Your task to perform on an android device: Open notification settings Image 0: 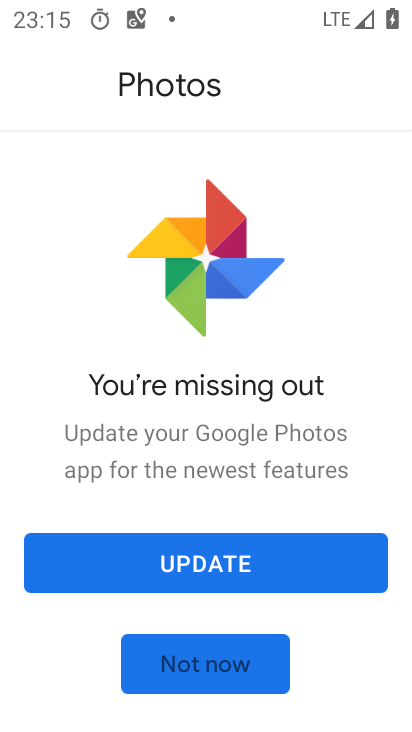
Step 0: press home button
Your task to perform on an android device: Open notification settings Image 1: 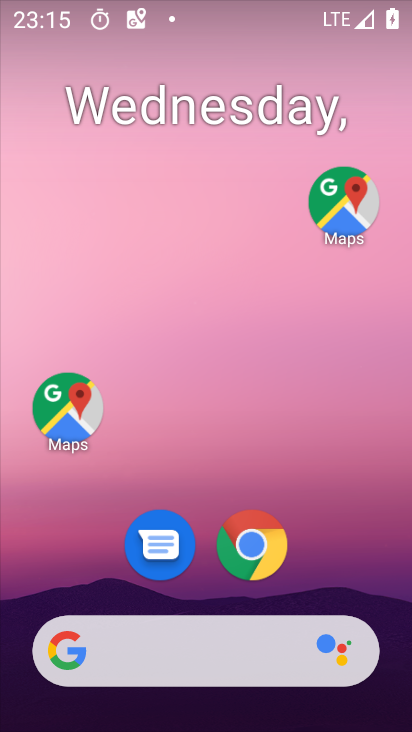
Step 1: drag from (323, 575) to (248, 161)
Your task to perform on an android device: Open notification settings Image 2: 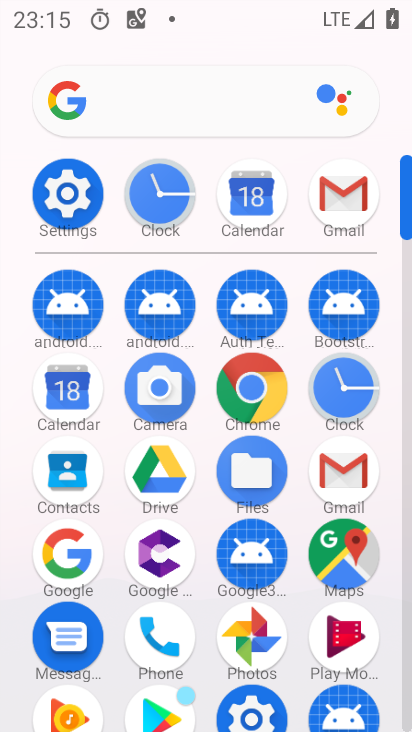
Step 2: click (64, 203)
Your task to perform on an android device: Open notification settings Image 3: 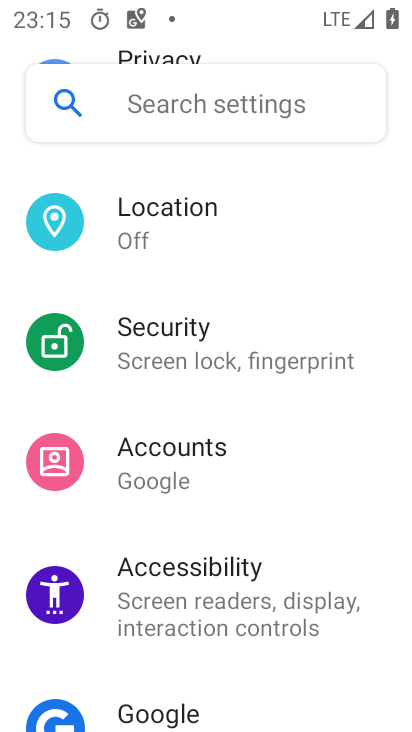
Step 3: drag from (227, 214) to (300, 555)
Your task to perform on an android device: Open notification settings Image 4: 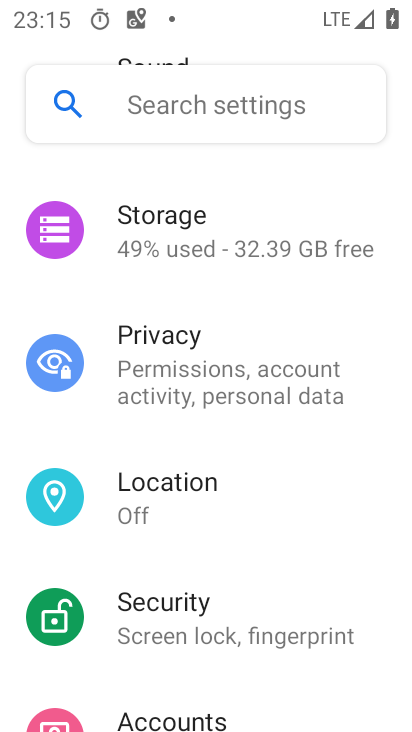
Step 4: drag from (263, 264) to (267, 465)
Your task to perform on an android device: Open notification settings Image 5: 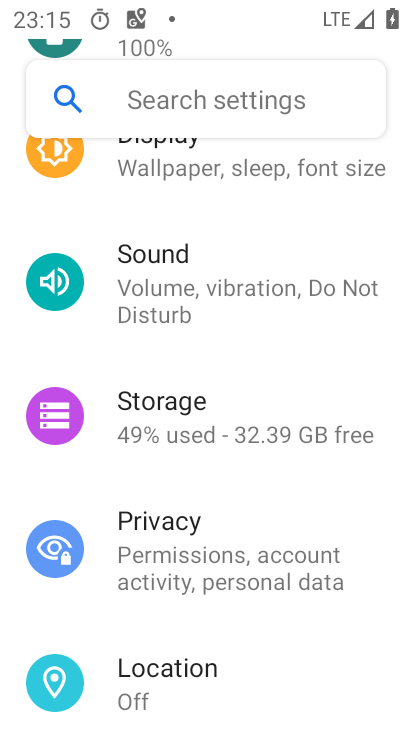
Step 5: drag from (310, 241) to (319, 395)
Your task to perform on an android device: Open notification settings Image 6: 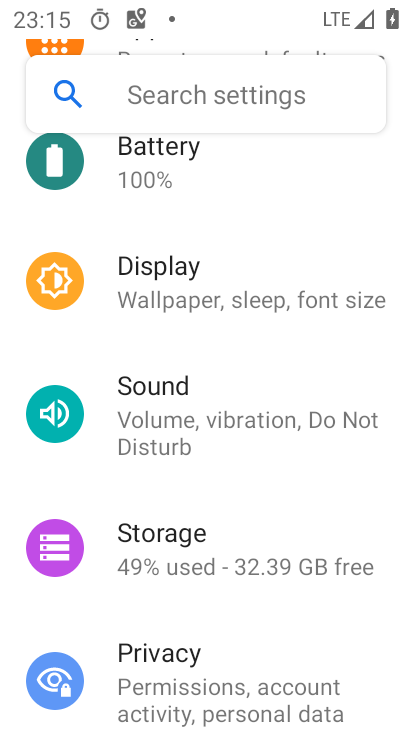
Step 6: drag from (285, 260) to (287, 485)
Your task to perform on an android device: Open notification settings Image 7: 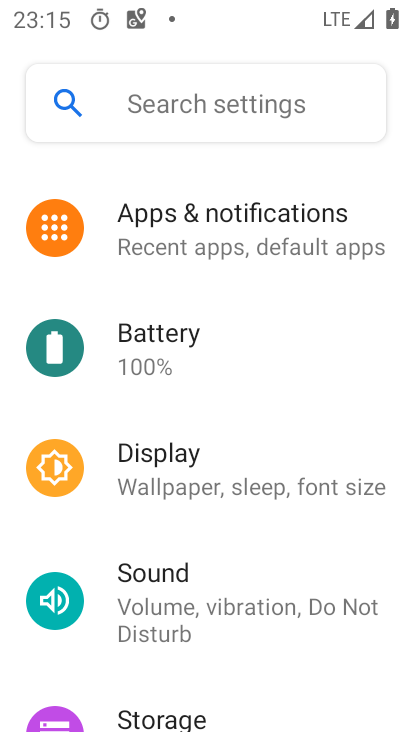
Step 7: click (284, 237)
Your task to perform on an android device: Open notification settings Image 8: 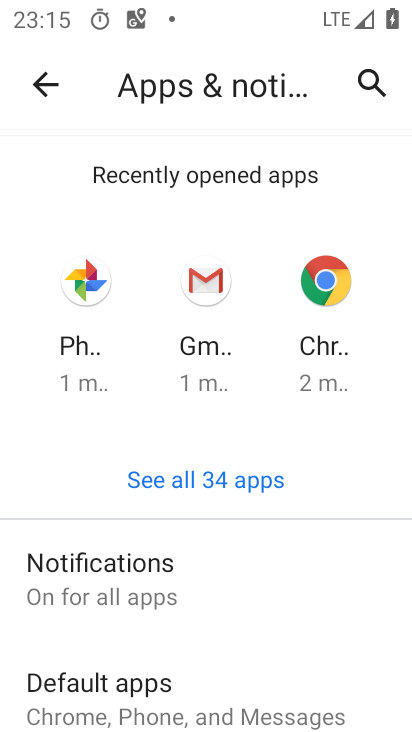
Step 8: click (181, 600)
Your task to perform on an android device: Open notification settings Image 9: 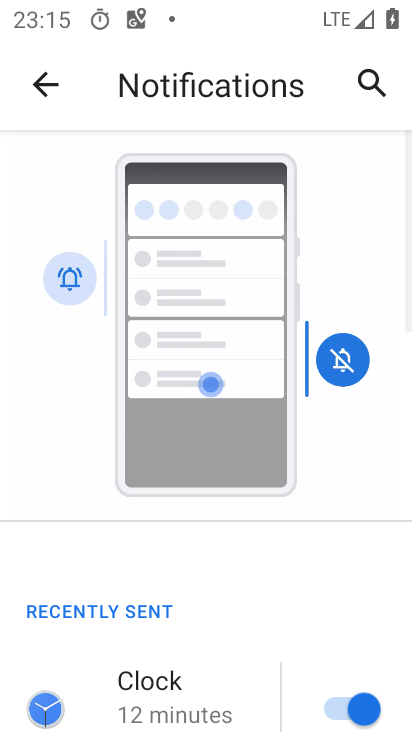
Step 9: task complete